Your task to perform on an android device: see creations saved in the google photos Image 0: 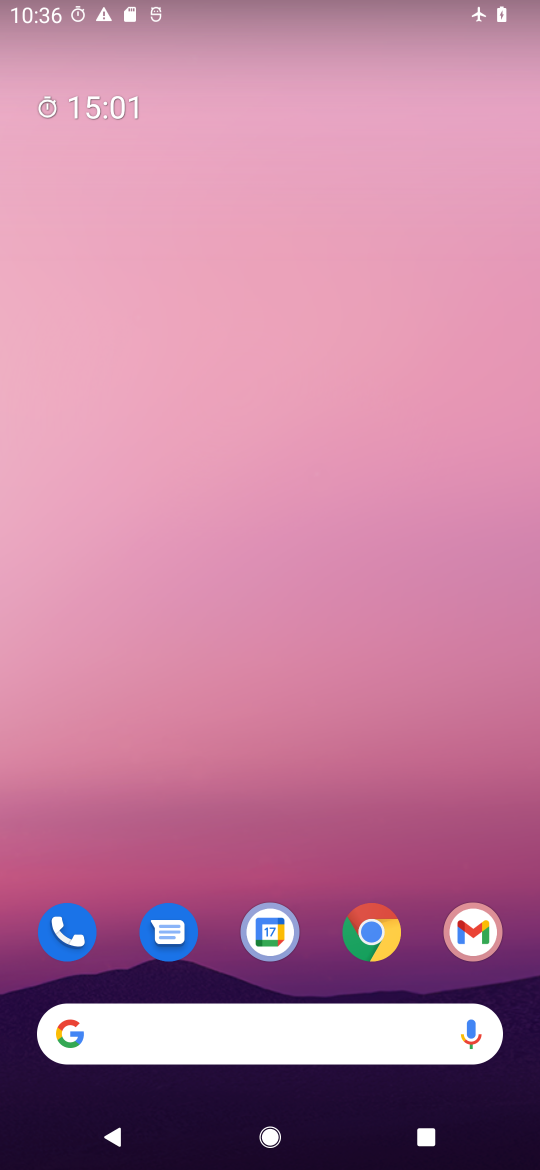
Step 0: drag from (269, 599) to (290, 325)
Your task to perform on an android device: see creations saved in the google photos Image 1: 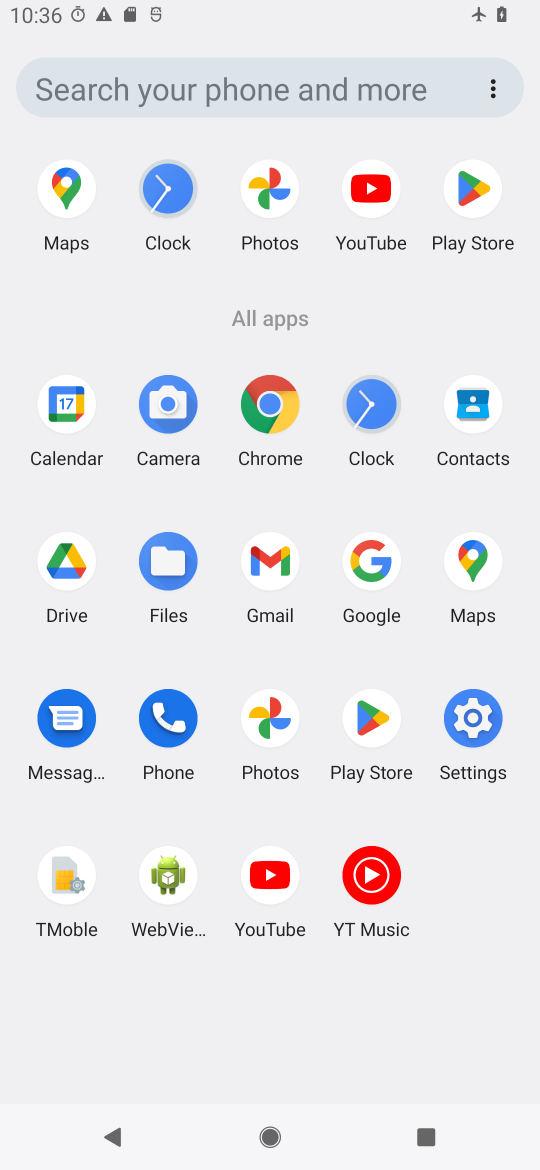
Step 1: click (256, 726)
Your task to perform on an android device: see creations saved in the google photos Image 2: 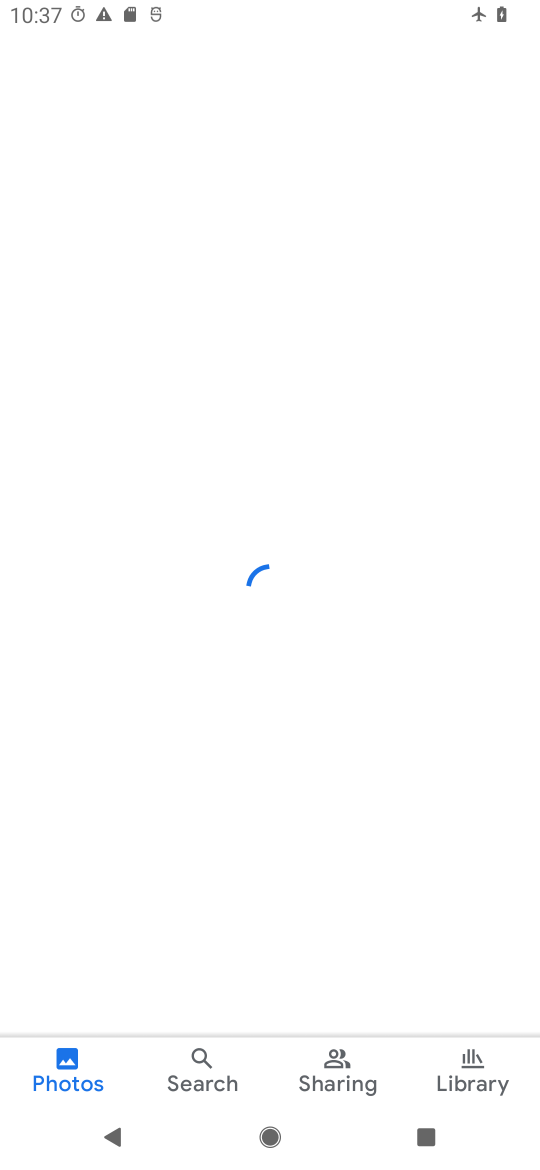
Step 2: click (428, 1058)
Your task to perform on an android device: see creations saved in the google photos Image 3: 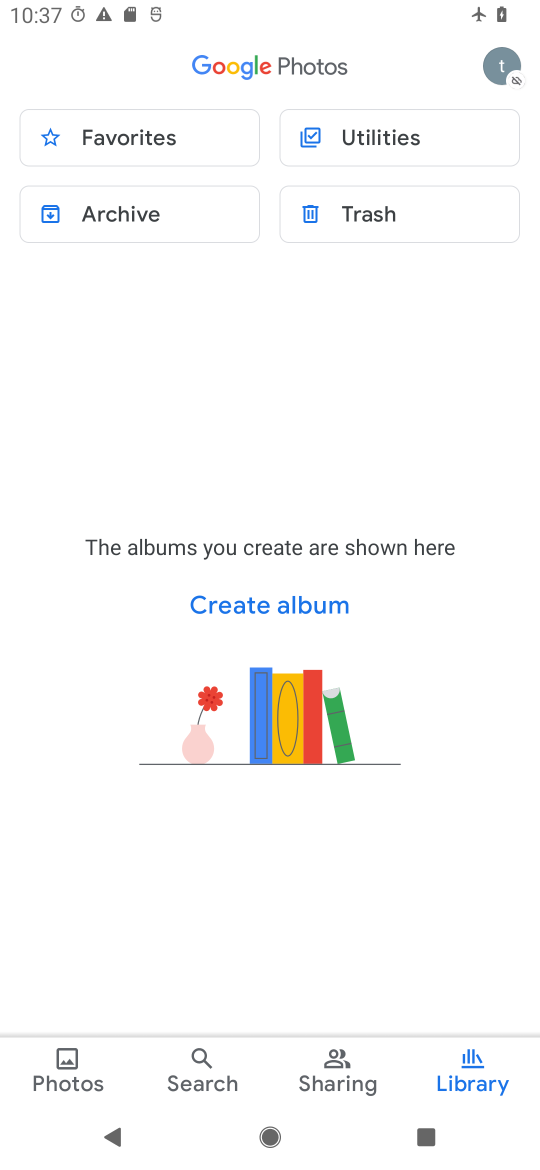
Step 3: click (75, 1058)
Your task to perform on an android device: see creations saved in the google photos Image 4: 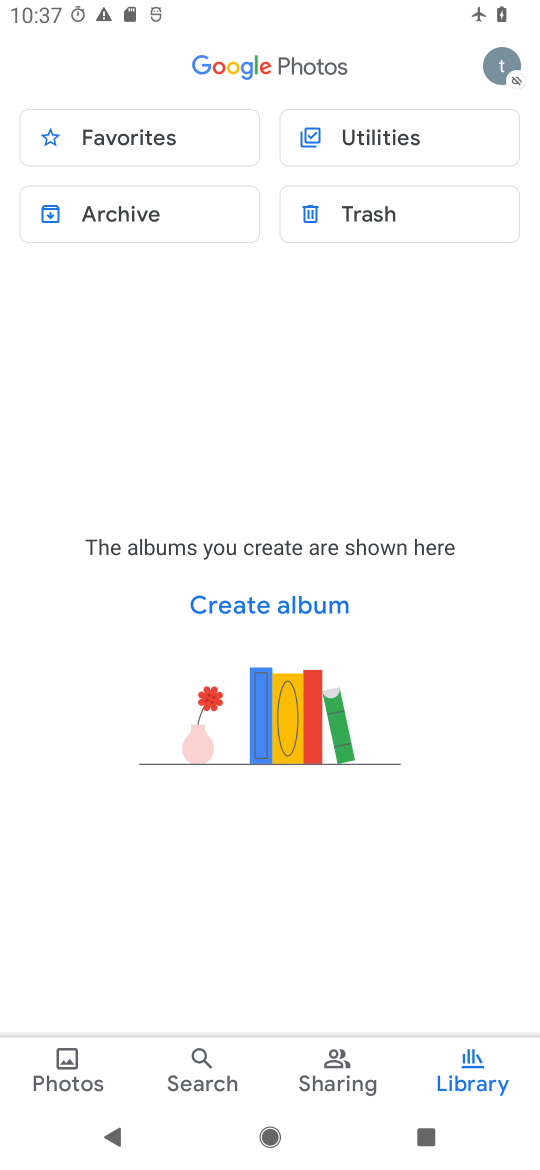
Step 4: click (76, 1053)
Your task to perform on an android device: see creations saved in the google photos Image 5: 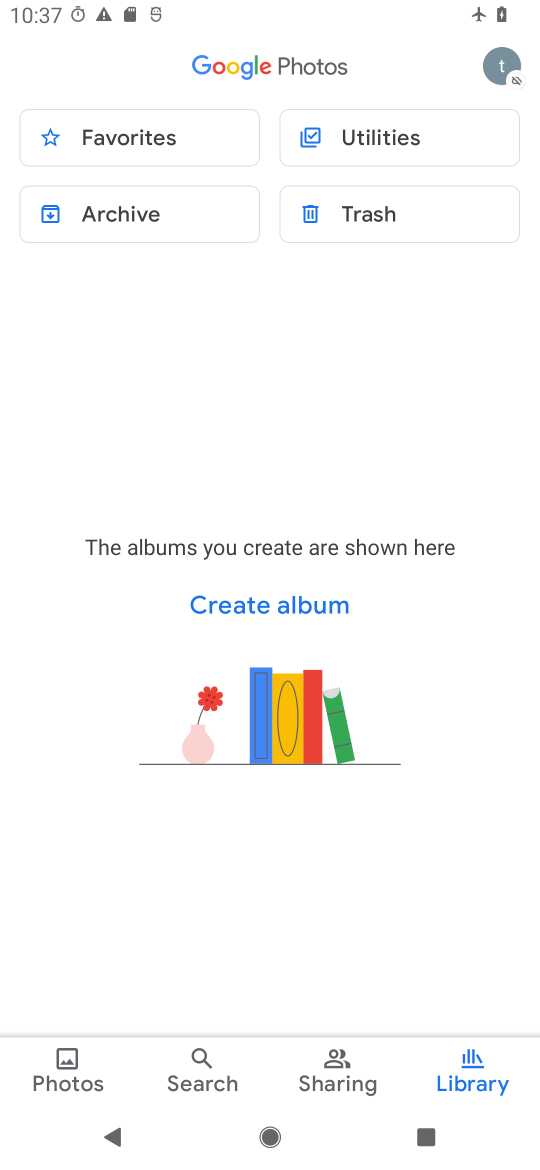
Step 5: click (60, 1079)
Your task to perform on an android device: see creations saved in the google photos Image 6: 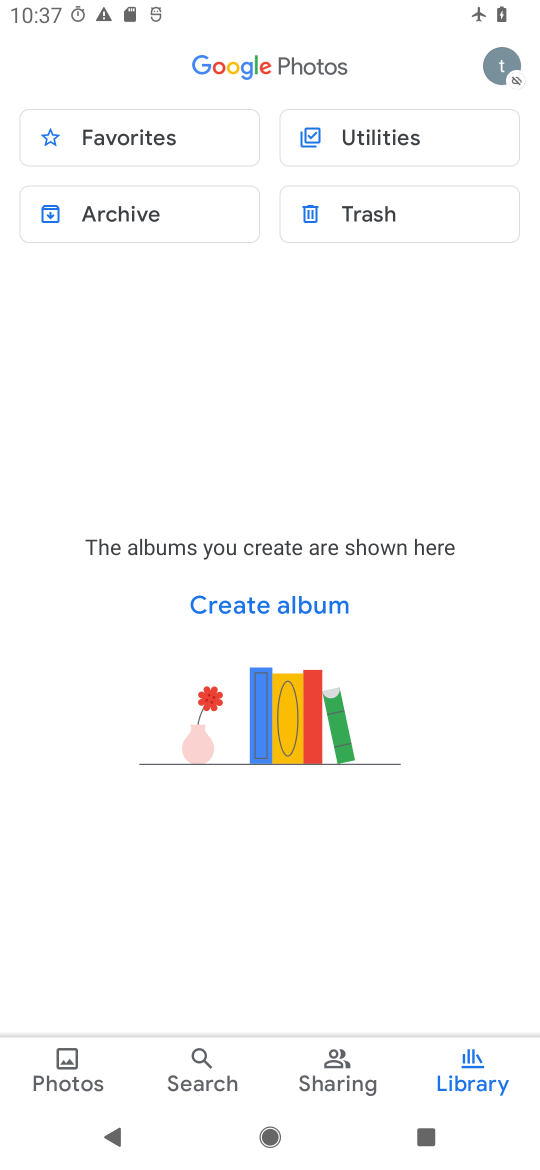
Step 6: click (60, 1079)
Your task to perform on an android device: see creations saved in the google photos Image 7: 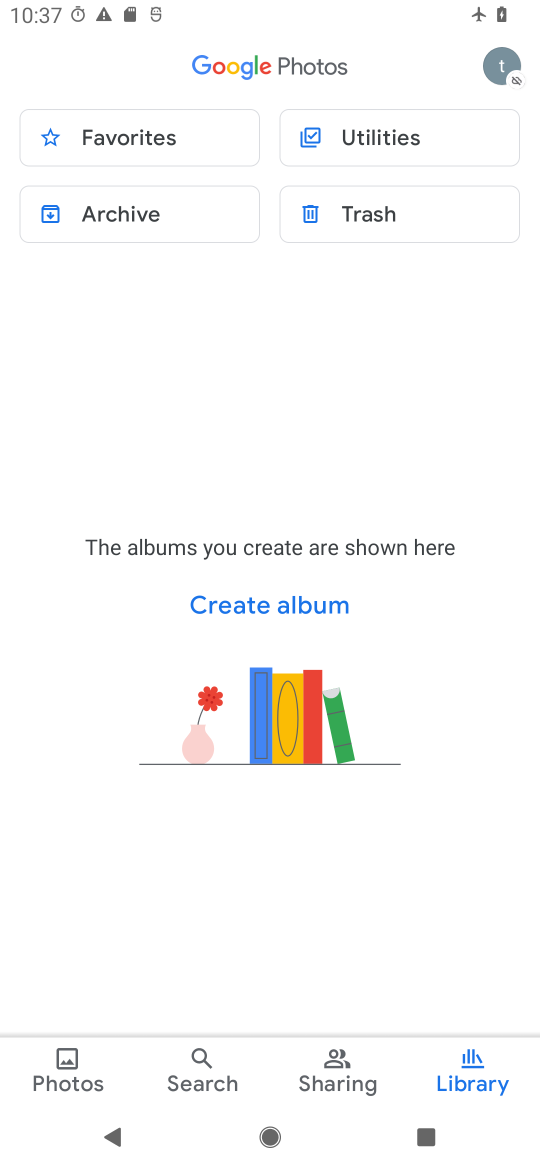
Step 7: click (62, 1070)
Your task to perform on an android device: see creations saved in the google photos Image 8: 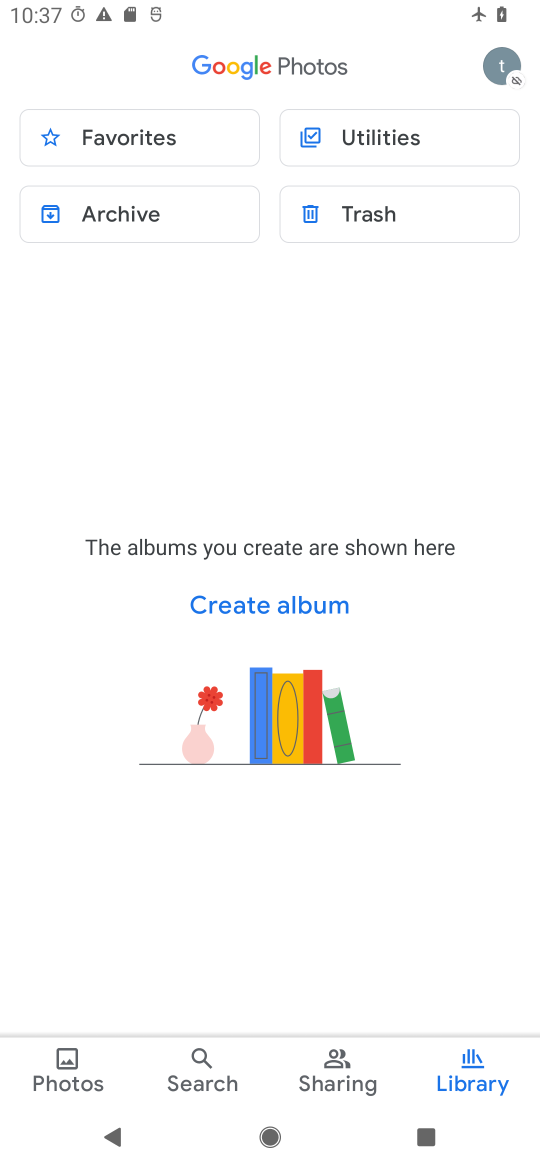
Step 8: task complete